Your task to perform on an android device: turn on translation in the chrome app Image 0: 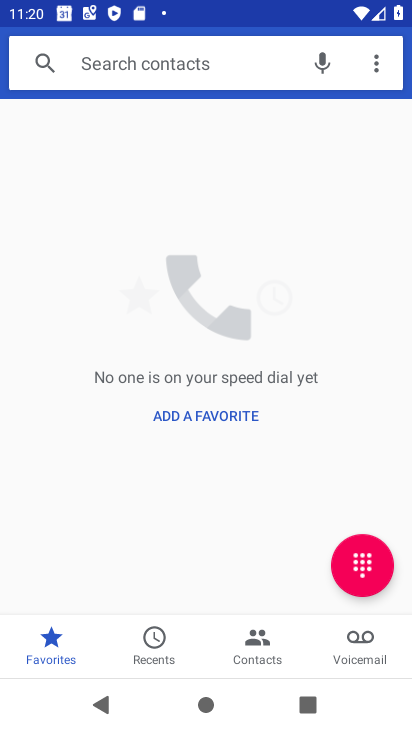
Step 0: press home button
Your task to perform on an android device: turn on translation in the chrome app Image 1: 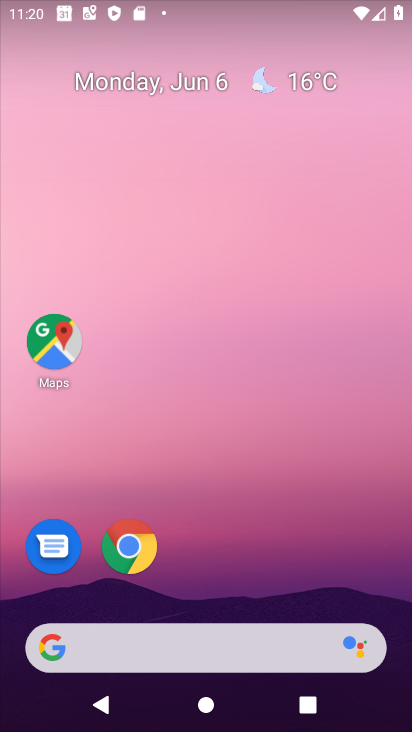
Step 1: click (134, 552)
Your task to perform on an android device: turn on translation in the chrome app Image 2: 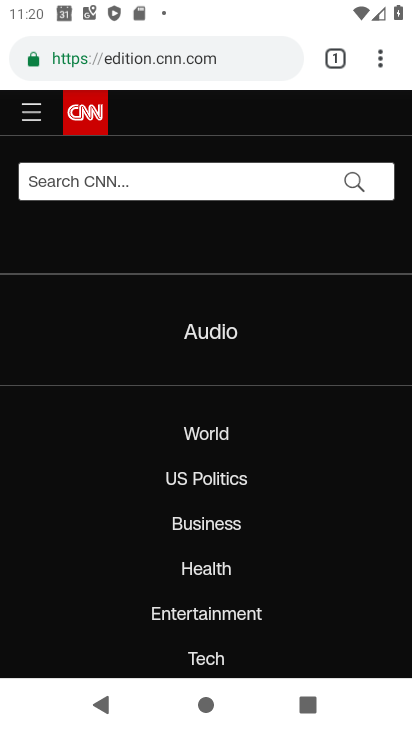
Step 2: click (386, 53)
Your task to perform on an android device: turn on translation in the chrome app Image 3: 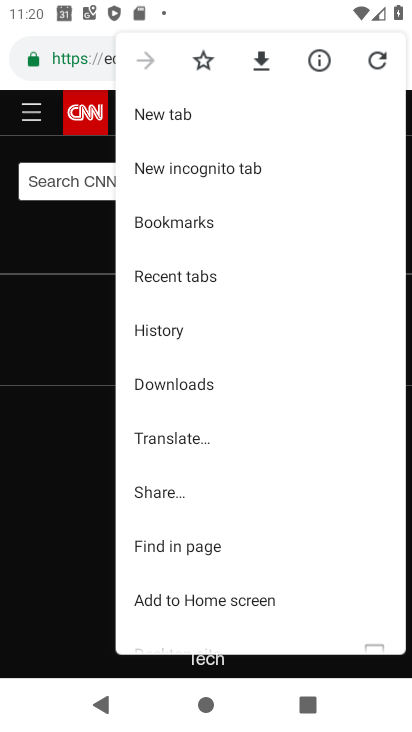
Step 3: drag from (204, 552) to (259, 199)
Your task to perform on an android device: turn on translation in the chrome app Image 4: 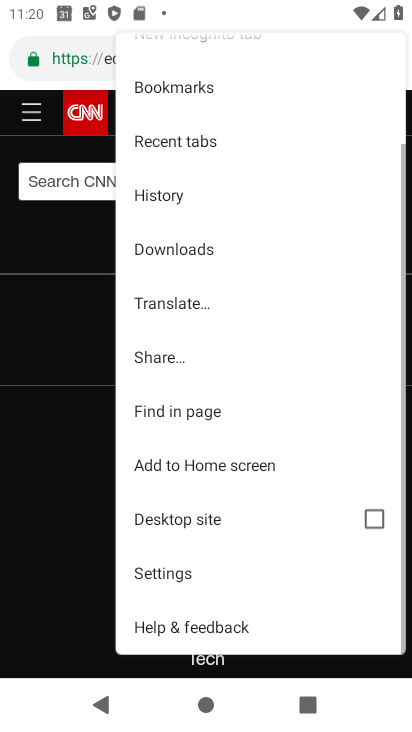
Step 4: click (176, 572)
Your task to perform on an android device: turn on translation in the chrome app Image 5: 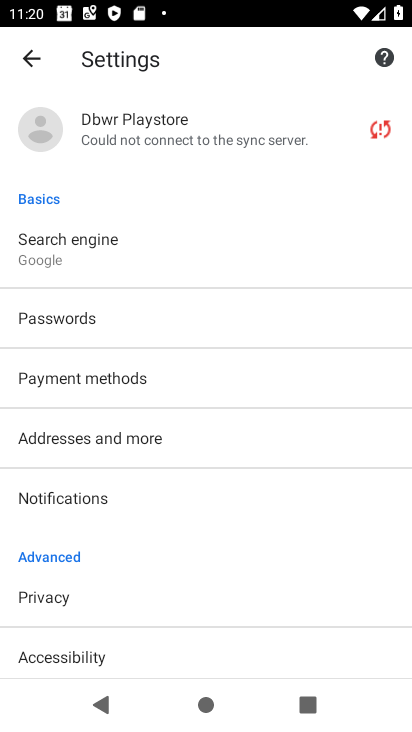
Step 5: drag from (163, 532) to (216, 130)
Your task to perform on an android device: turn on translation in the chrome app Image 6: 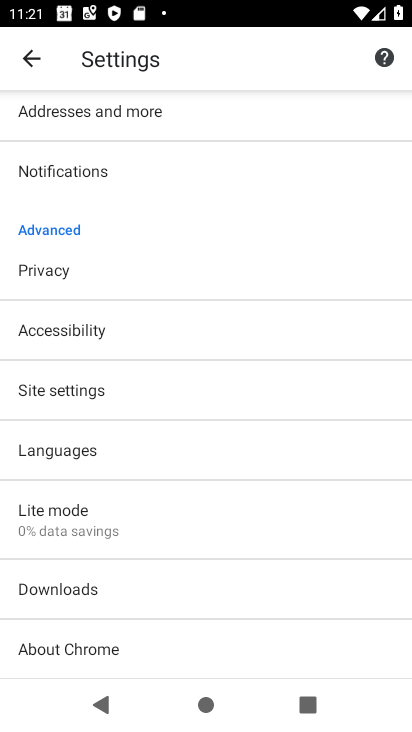
Step 6: click (107, 456)
Your task to perform on an android device: turn on translation in the chrome app Image 7: 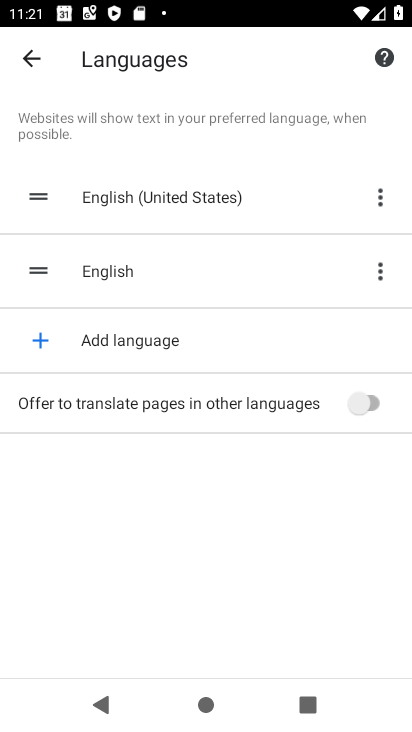
Step 7: click (361, 410)
Your task to perform on an android device: turn on translation in the chrome app Image 8: 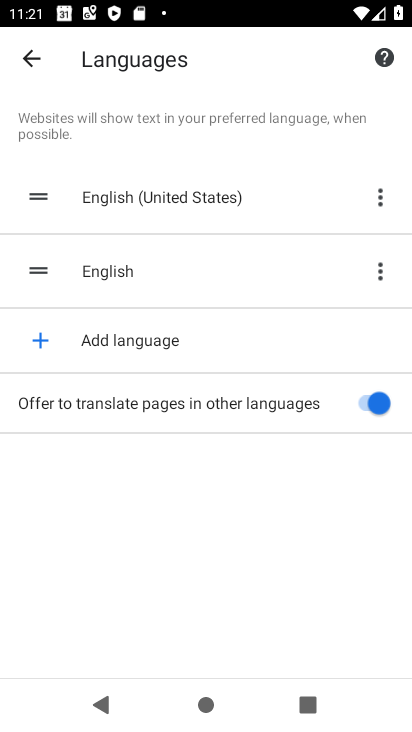
Step 8: task complete